Your task to perform on an android device: Open wifi settings Image 0: 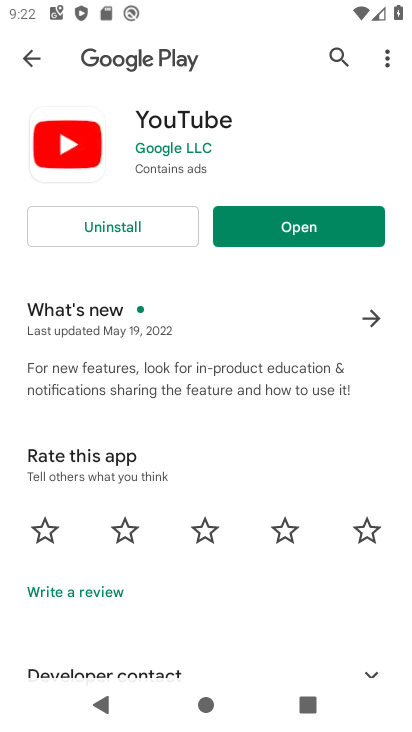
Step 0: press home button
Your task to perform on an android device: Open wifi settings Image 1: 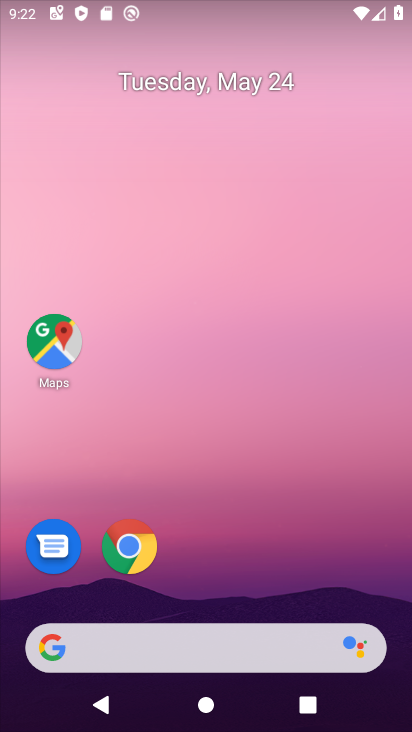
Step 1: drag from (268, 518) to (265, 32)
Your task to perform on an android device: Open wifi settings Image 2: 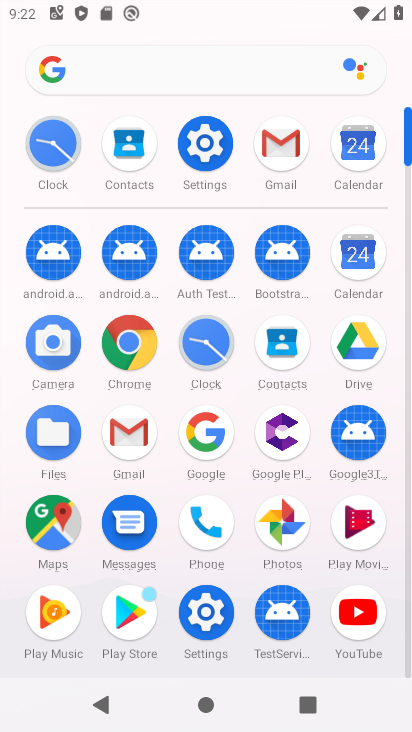
Step 2: click (223, 118)
Your task to perform on an android device: Open wifi settings Image 3: 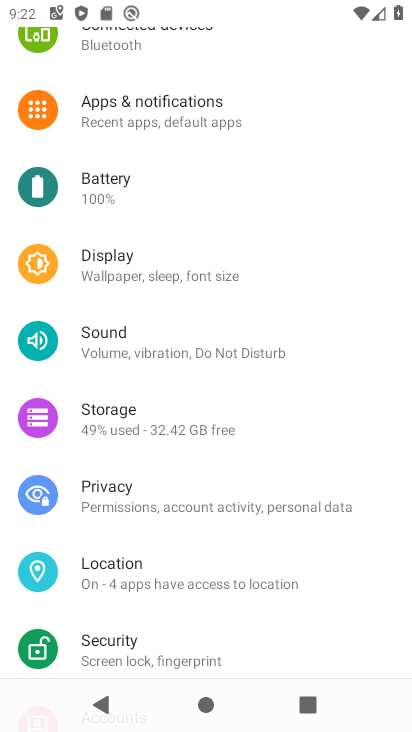
Step 3: drag from (203, 155) to (199, 443)
Your task to perform on an android device: Open wifi settings Image 4: 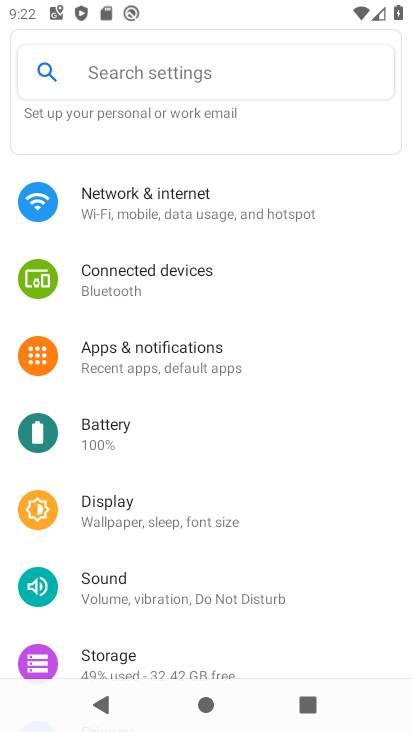
Step 4: click (203, 193)
Your task to perform on an android device: Open wifi settings Image 5: 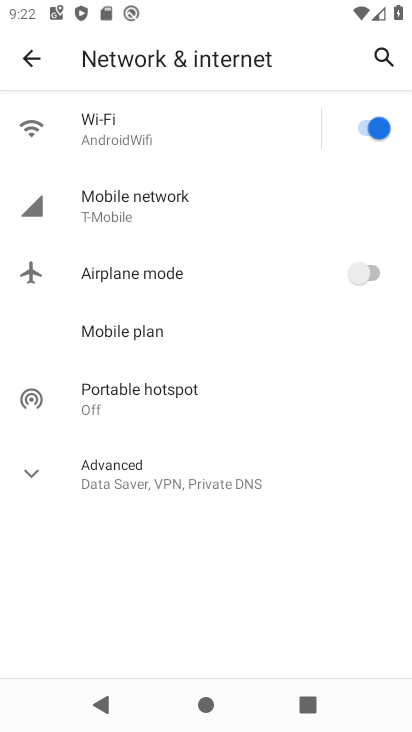
Step 5: click (199, 118)
Your task to perform on an android device: Open wifi settings Image 6: 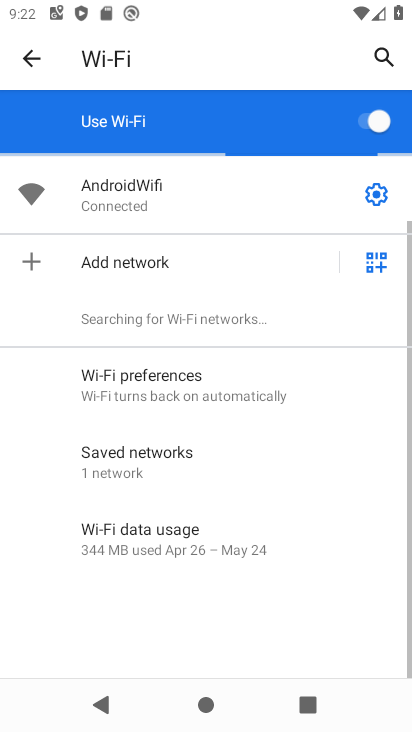
Step 6: task complete